Your task to perform on an android device: turn on improve location accuracy Image 0: 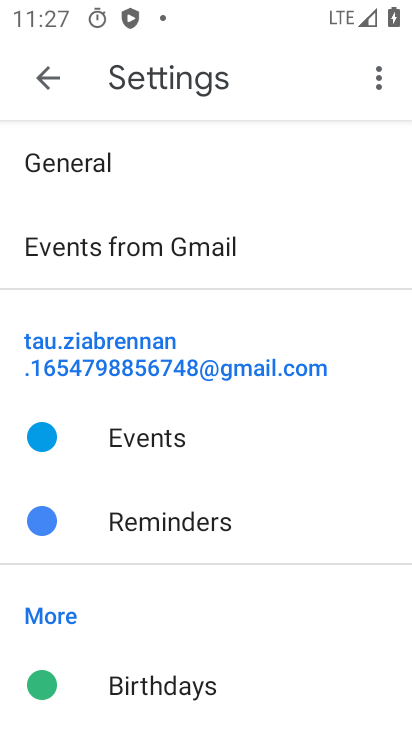
Step 0: press back button
Your task to perform on an android device: turn on improve location accuracy Image 1: 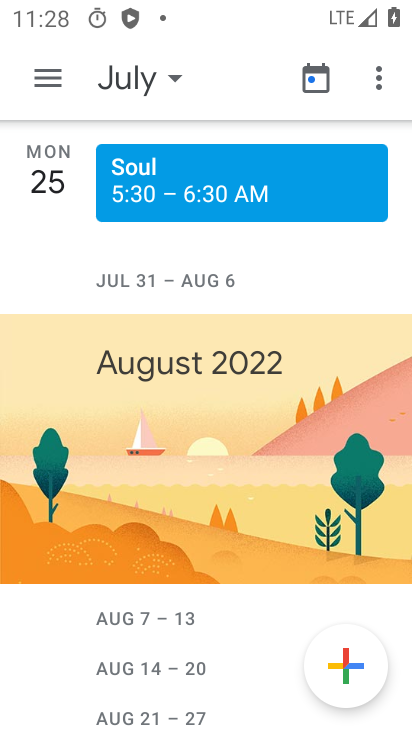
Step 1: press back button
Your task to perform on an android device: turn on improve location accuracy Image 2: 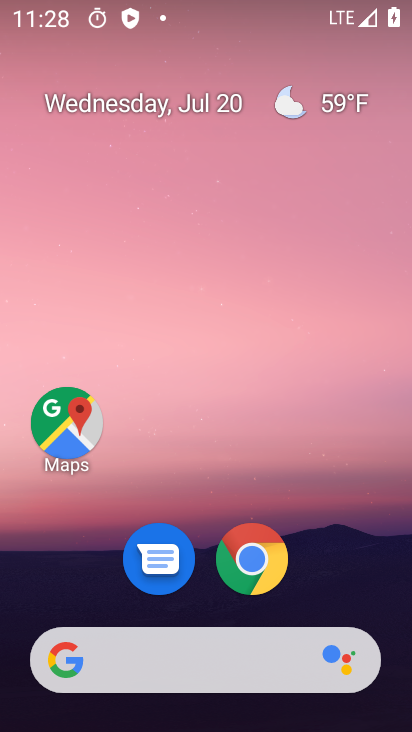
Step 2: drag from (167, 599) to (201, 126)
Your task to perform on an android device: turn on improve location accuracy Image 3: 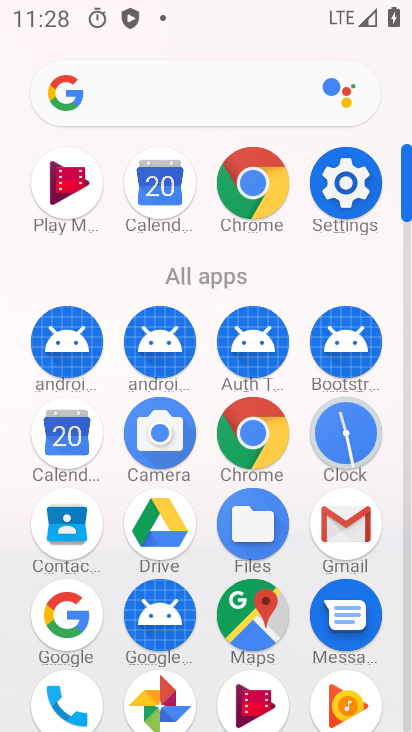
Step 3: click (348, 177)
Your task to perform on an android device: turn on improve location accuracy Image 4: 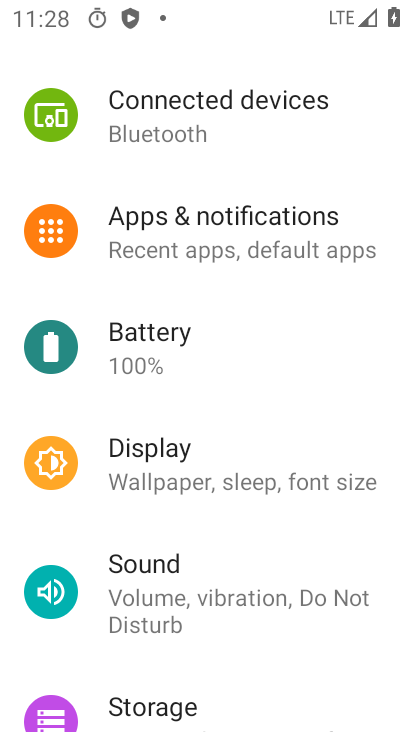
Step 4: drag from (214, 677) to (306, 108)
Your task to perform on an android device: turn on improve location accuracy Image 5: 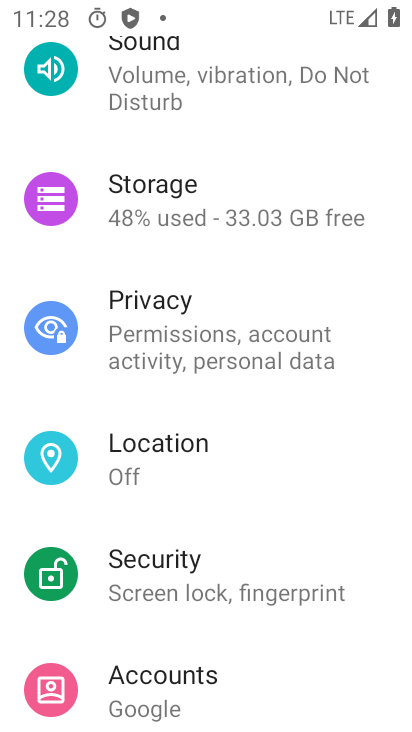
Step 5: click (167, 447)
Your task to perform on an android device: turn on improve location accuracy Image 6: 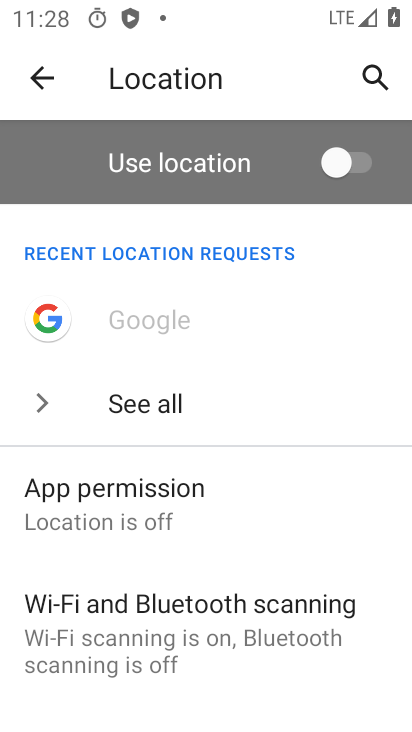
Step 6: drag from (166, 649) to (256, 242)
Your task to perform on an android device: turn on improve location accuracy Image 7: 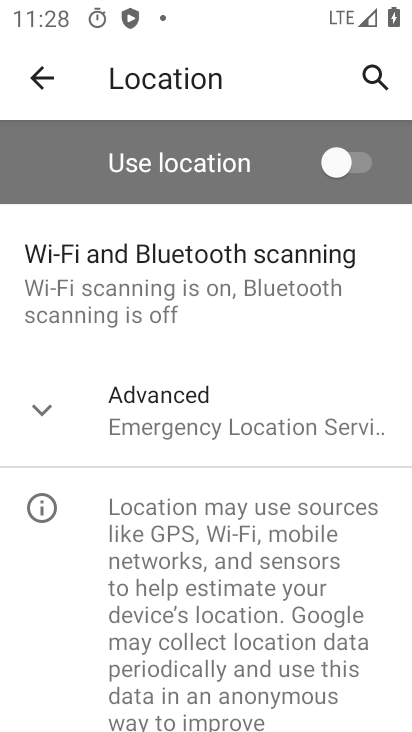
Step 7: click (197, 436)
Your task to perform on an android device: turn on improve location accuracy Image 8: 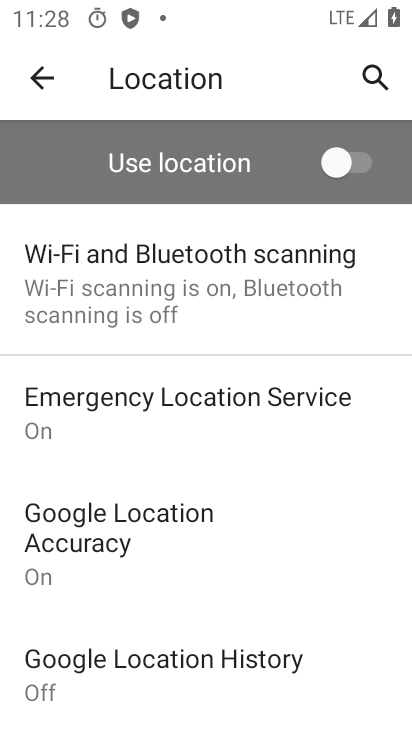
Step 8: click (151, 524)
Your task to perform on an android device: turn on improve location accuracy Image 9: 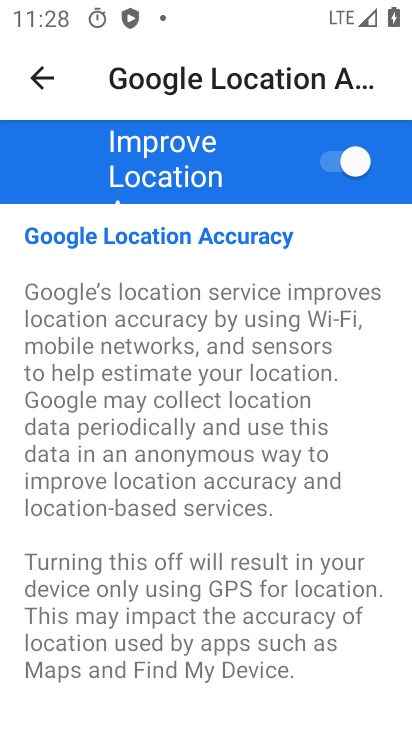
Step 9: task complete